Your task to perform on an android device: change the upload size in google photos Image 0: 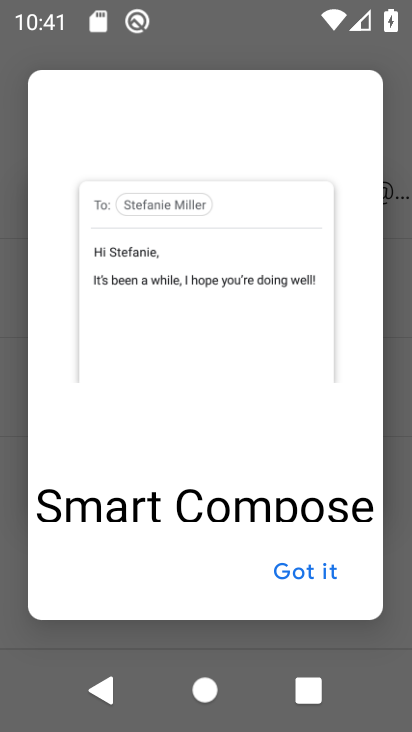
Step 0: press home button
Your task to perform on an android device: change the upload size in google photos Image 1: 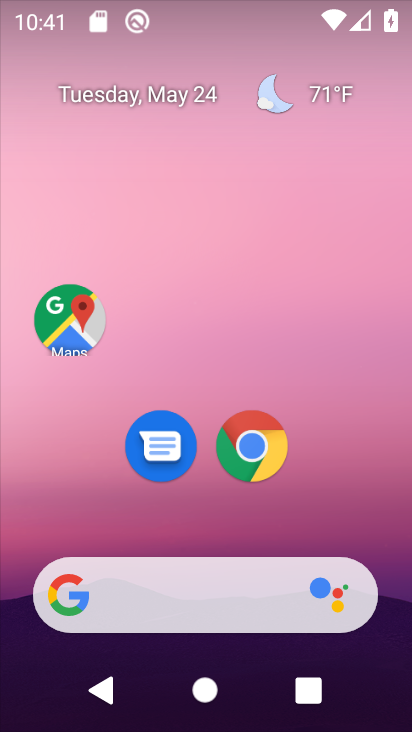
Step 1: drag from (209, 503) to (214, 58)
Your task to perform on an android device: change the upload size in google photos Image 2: 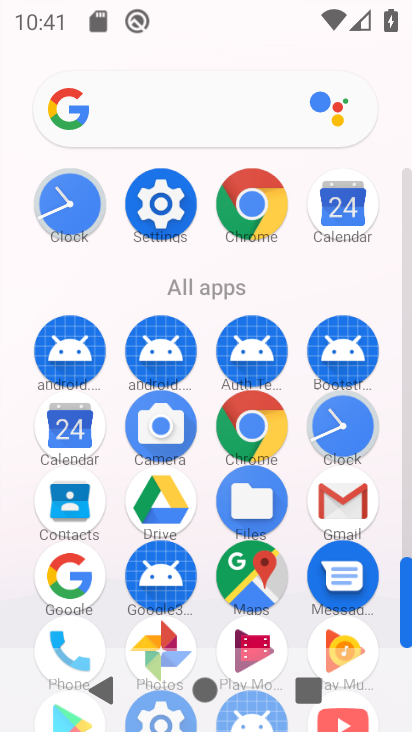
Step 2: drag from (202, 295) to (218, 70)
Your task to perform on an android device: change the upload size in google photos Image 3: 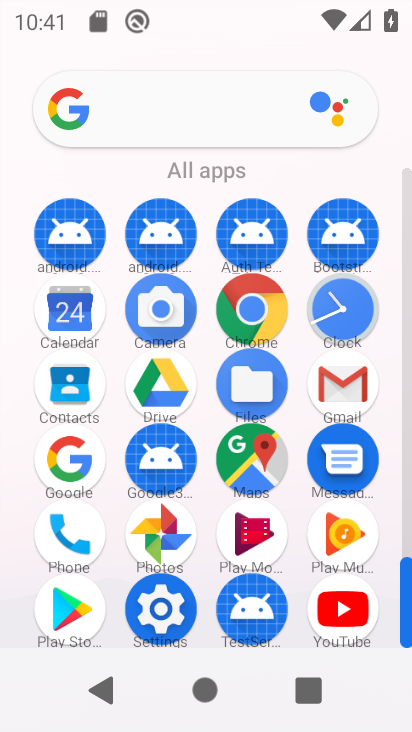
Step 3: click (152, 541)
Your task to perform on an android device: change the upload size in google photos Image 4: 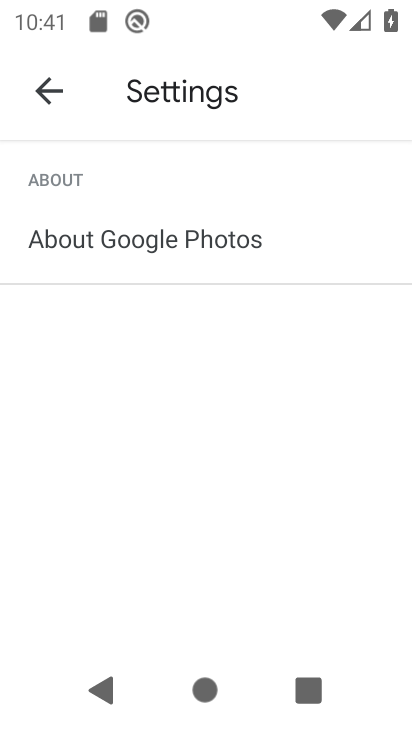
Step 4: click (53, 119)
Your task to perform on an android device: change the upload size in google photos Image 5: 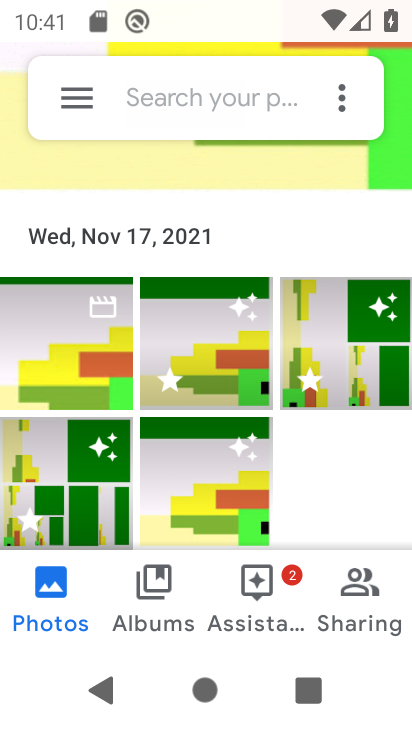
Step 5: click (70, 102)
Your task to perform on an android device: change the upload size in google photos Image 6: 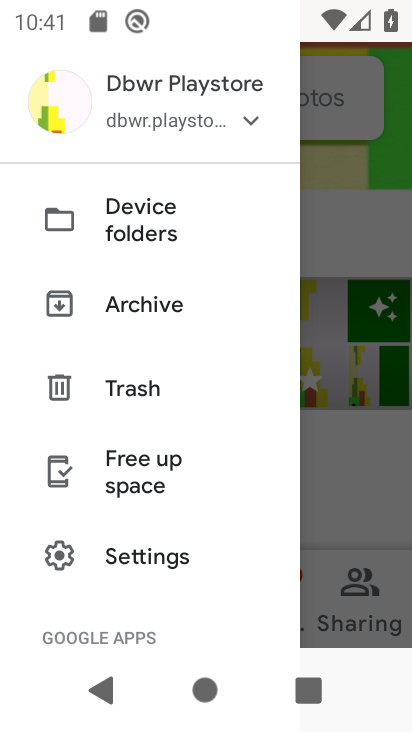
Step 6: click (136, 565)
Your task to perform on an android device: change the upload size in google photos Image 7: 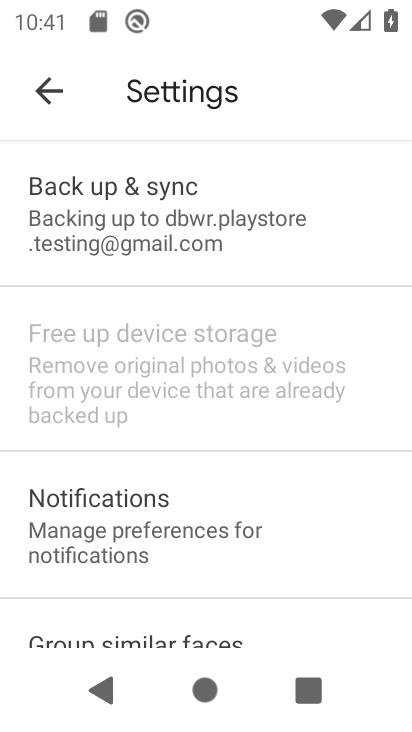
Step 7: click (199, 216)
Your task to perform on an android device: change the upload size in google photos Image 8: 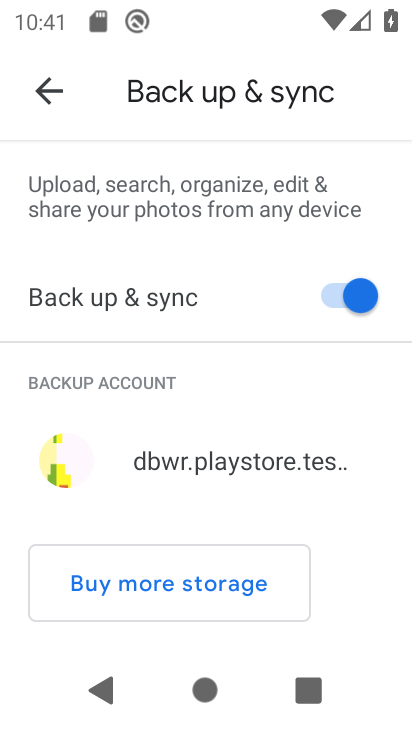
Step 8: drag from (190, 517) to (184, 2)
Your task to perform on an android device: change the upload size in google photos Image 9: 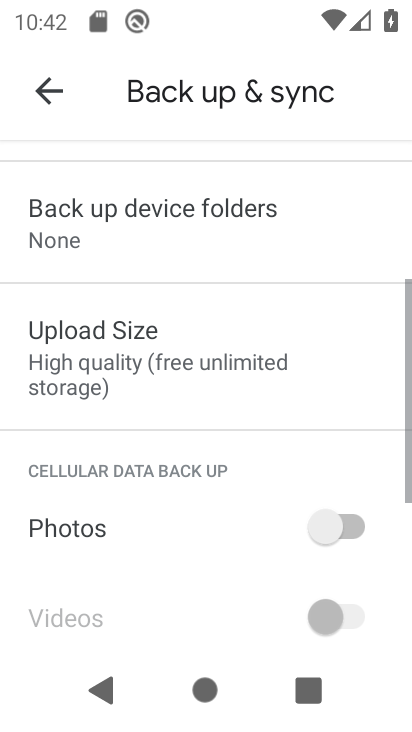
Step 9: click (131, 392)
Your task to perform on an android device: change the upload size in google photos Image 10: 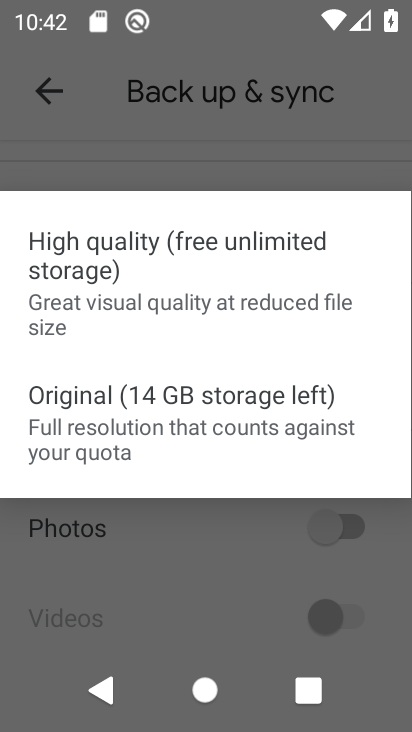
Step 10: click (175, 541)
Your task to perform on an android device: change the upload size in google photos Image 11: 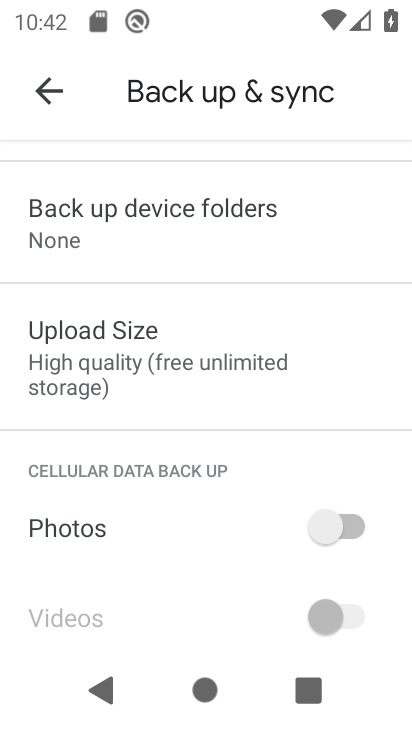
Step 11: click (177, 378)
Your task to perform on an android device: change the upload size in google photos Image 12: 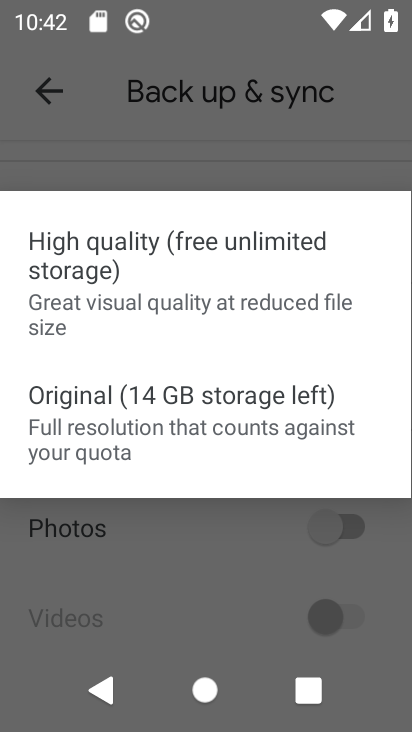
Step 12: click (140, 414)
Your task to perform on an android device: change the upload size in google photos Image 13: 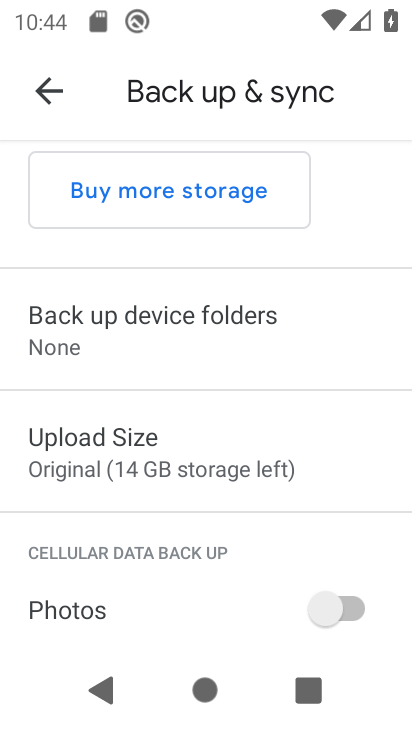
Step 13: task complete